Your task to perform on an android device: Open Wikipedia Image 0: 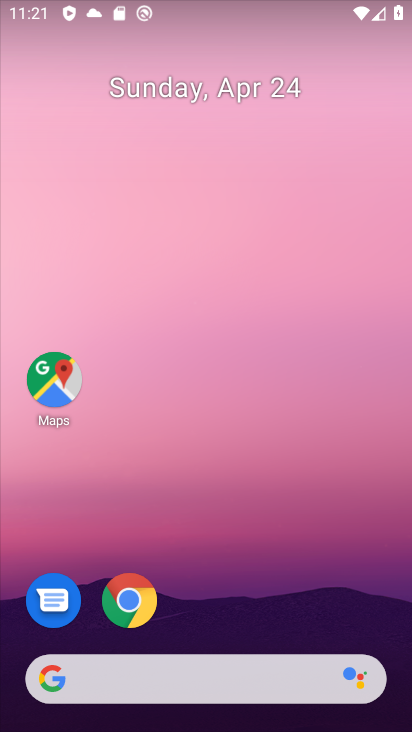
Step 0: drag from (238, 594) to (176, 160)
Your task to perform on an android device: Open Wikipedia Image 1: 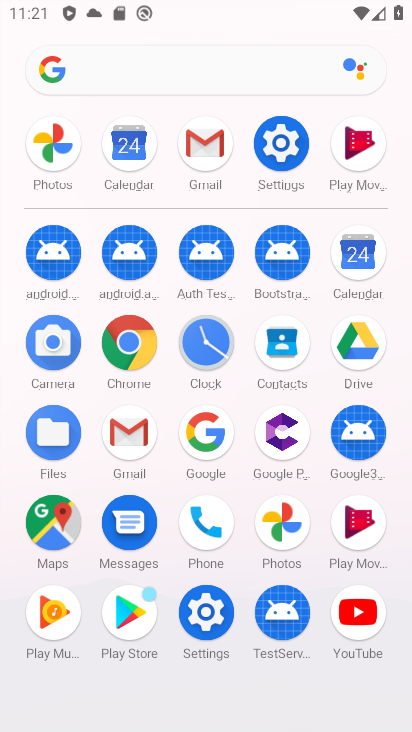
Step 1: click (123, 334)
Your task to perform on an android device: Open Wikipedia Image 2: 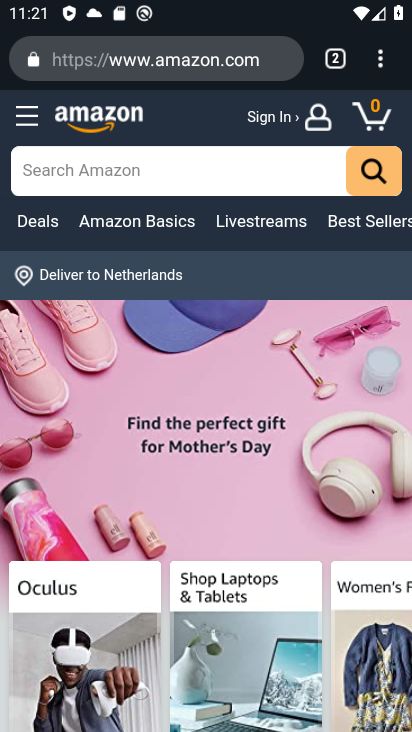
Step 2: click (380, 67)
Your task to perform on an android device: Open Wikipedia Image 3: 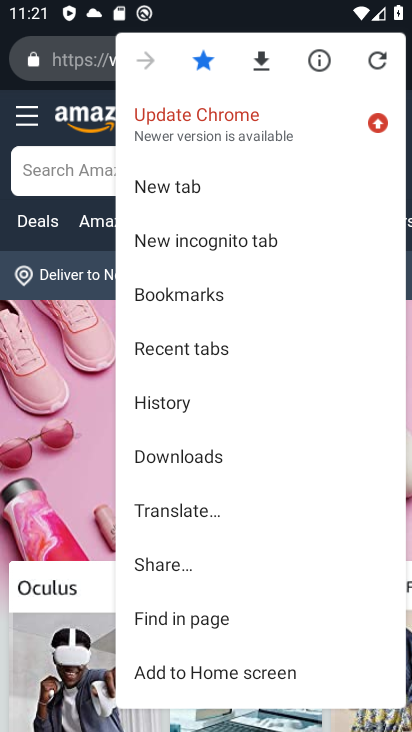
Step 3: drag from (294, 553) to (259, 363)
Your task to perform on an android device: Open Wikipedia Image 4: 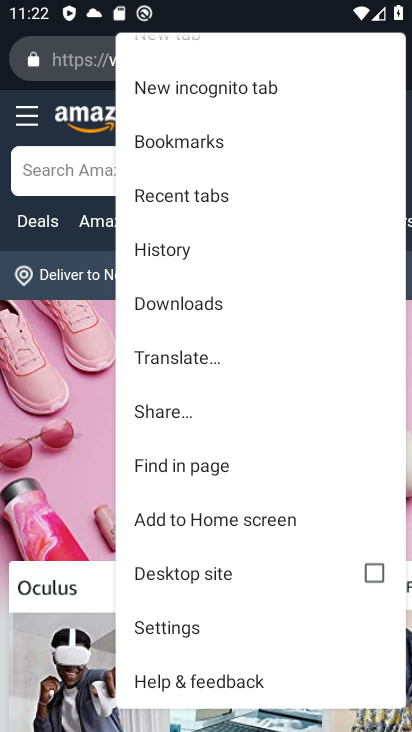
Step 4: drag from (298, 151) to (357, 710)
Your task to perform on an android device: Open Wikipedia Image 5: 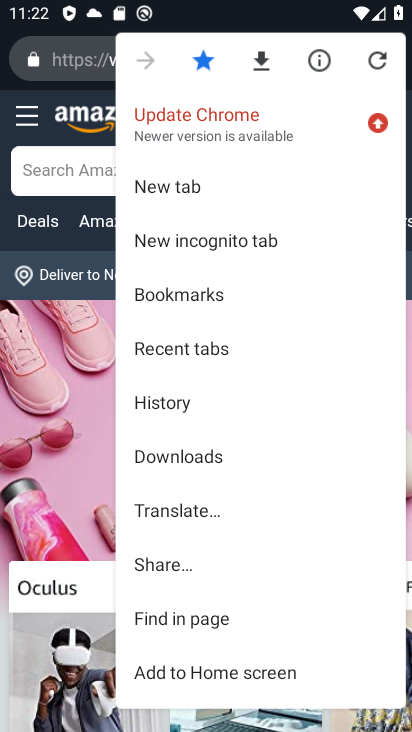
Step 5: click (180, 181)
Your task to perform on an android device: Open Wikipedia Image 6: 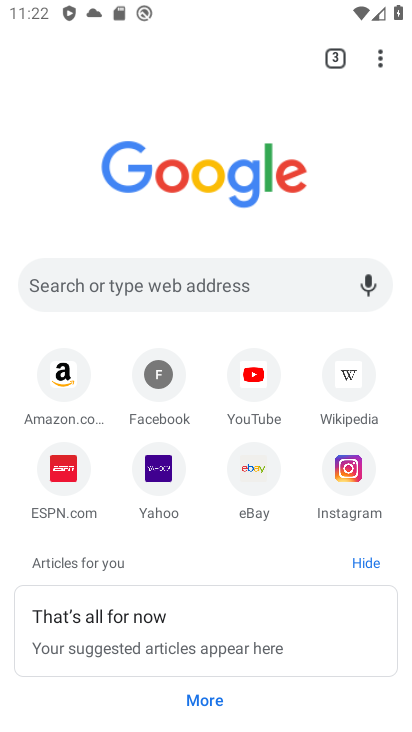
Step 6: click (351, 372)
Your task to perform on an android device: Open Wikipedia Image 7: 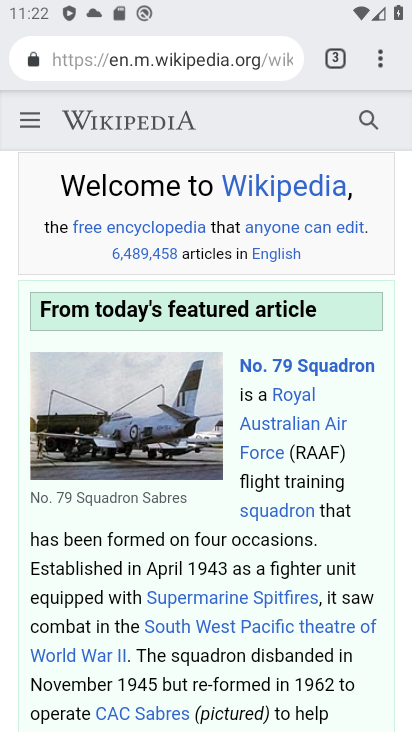
Step 7: task complete